Your task to perform on an android device: Open Yahoo.com Image 0: 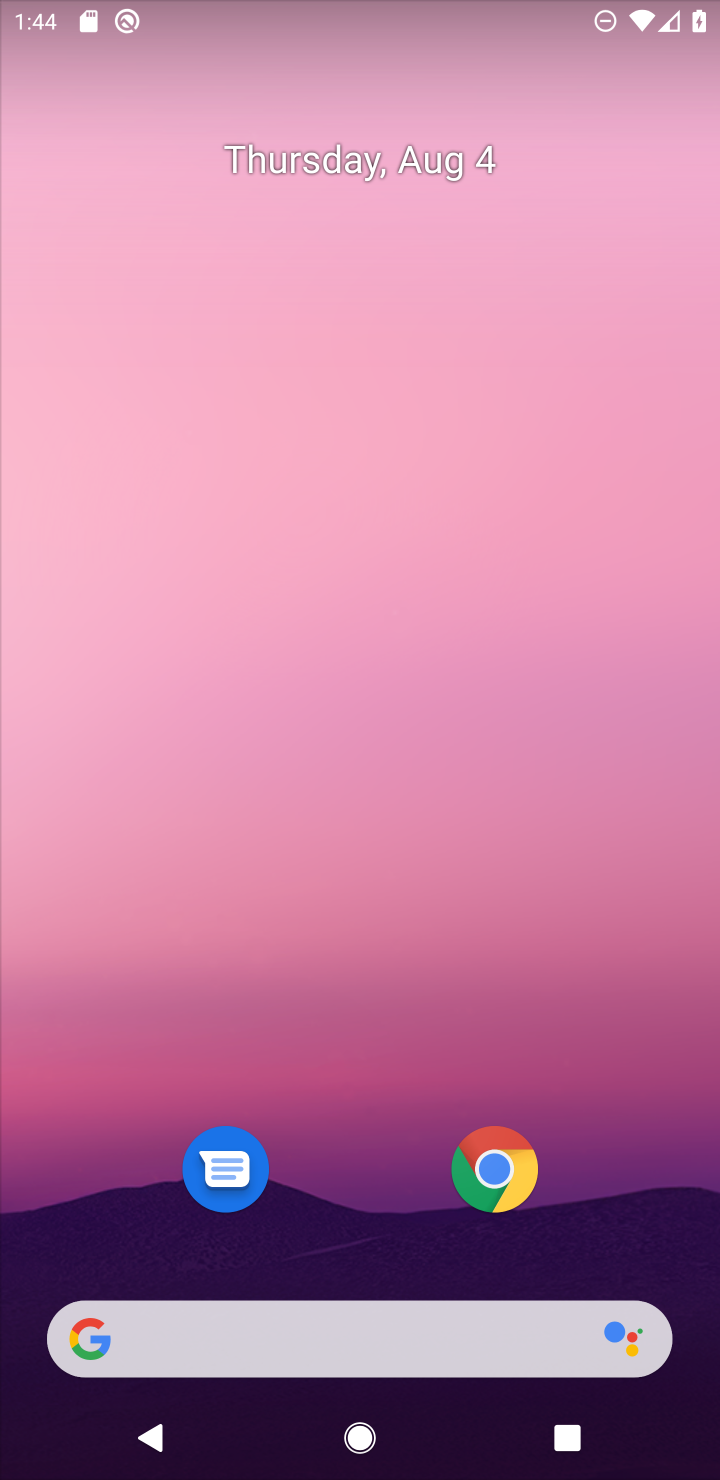
Step 0: click (499, 1180)
Your task to perform on an android device: Open Yahoo.com Image 1: 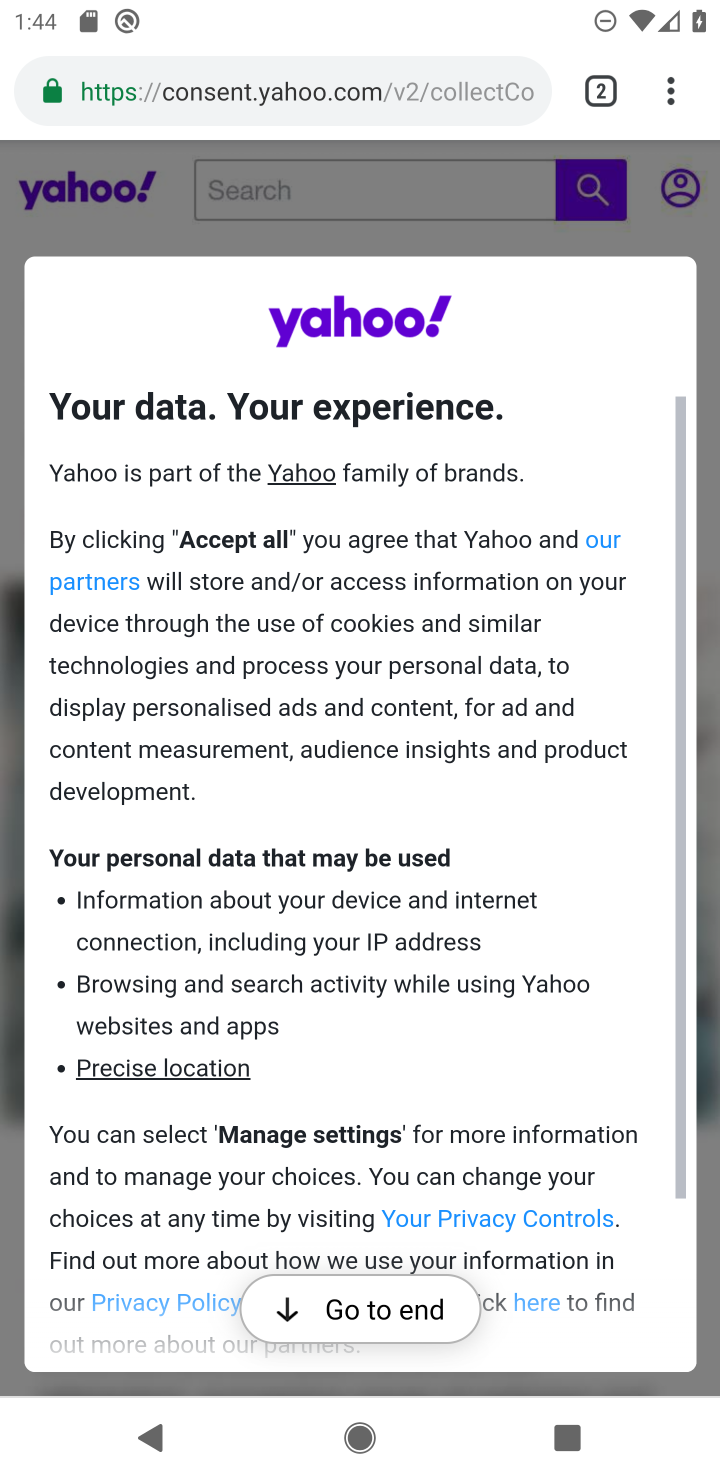
Step 1: task complete